Your task to perform on an android device: open app "Microsoft Excel" (install if not already installed) Image 0: 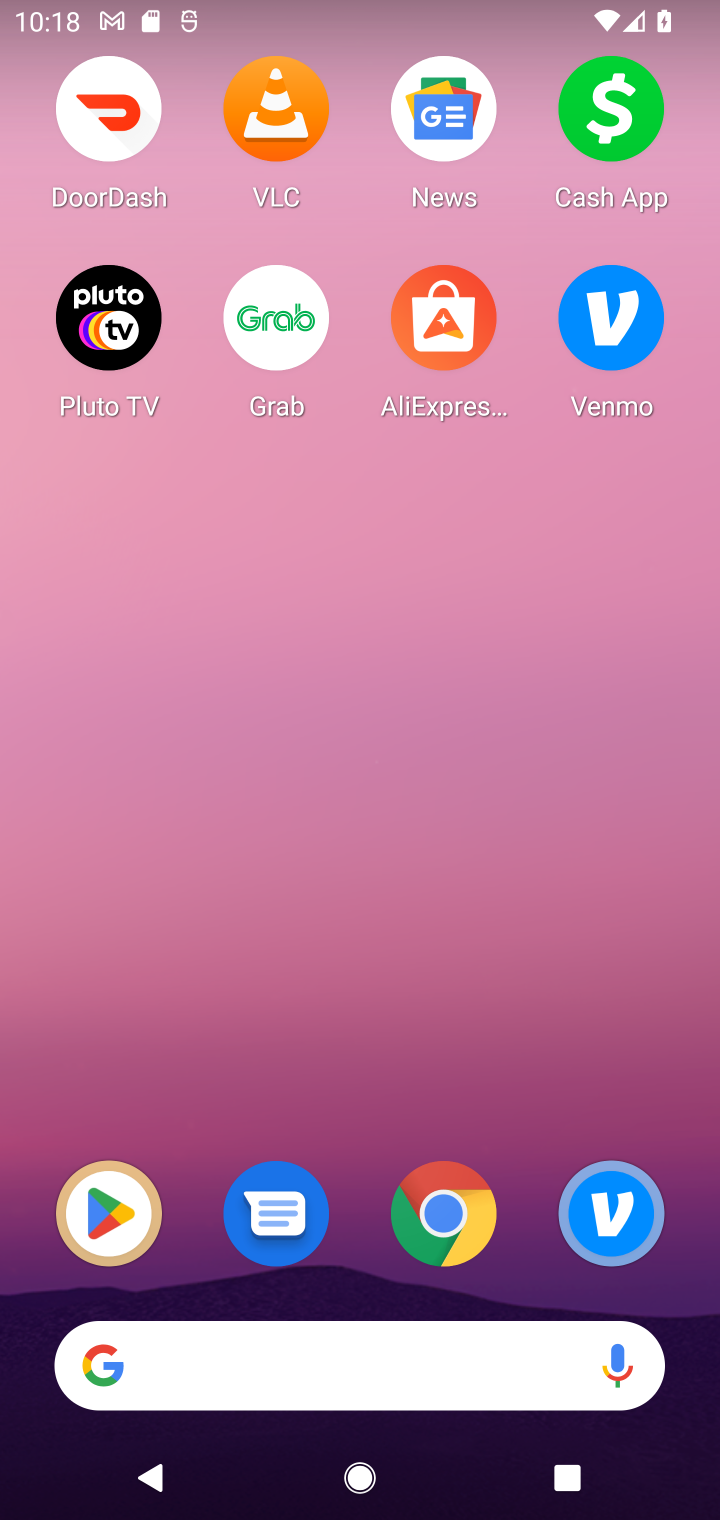
Step 0: drag from (386, 175) to (241, 104)
Your task to perform on an android device: open app "Microsoft Excel" (install if not already installed) Image 1: 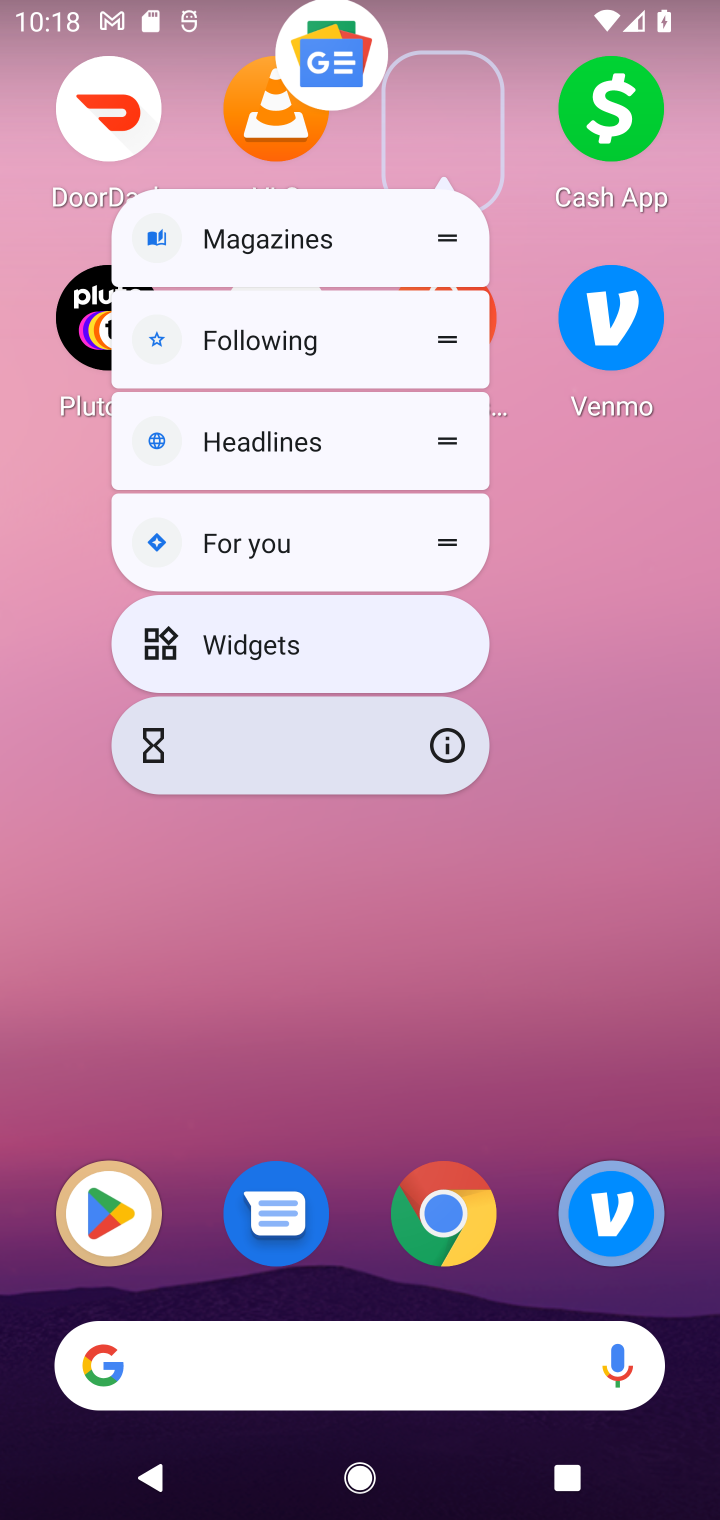
Step 1: click (103, 1226)
Your task to perform on an android device: open app "Microsoft Excel" (install if not already installed) Image 2: 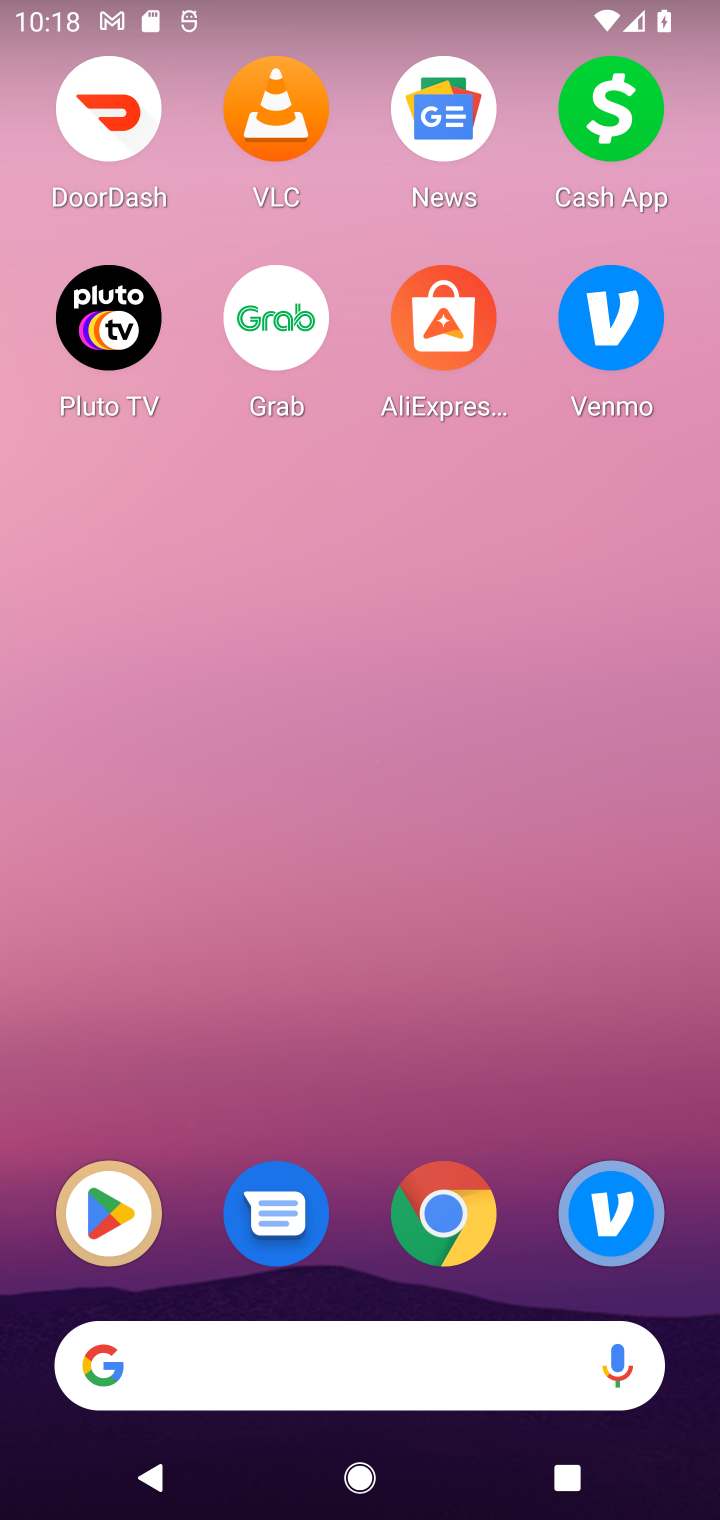
Step 2: click (103, 1226)
Your task to perform on an android device: open app "Microsoft Excel" (install if not already installed) Image 3: 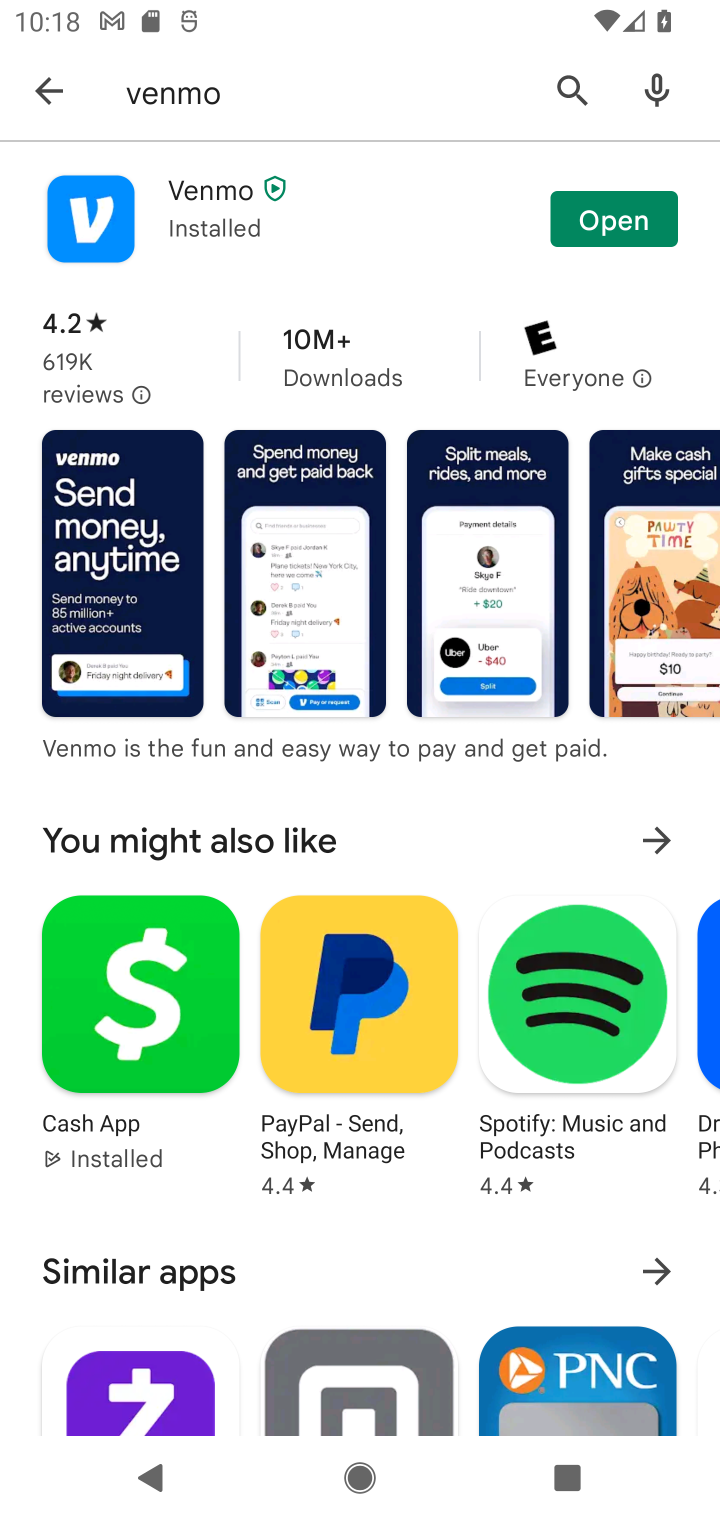
Step 3: click (36, 91)
Your task to perform on an android device: open app "Microsoft Excel" (install if not already installed) Image 4: 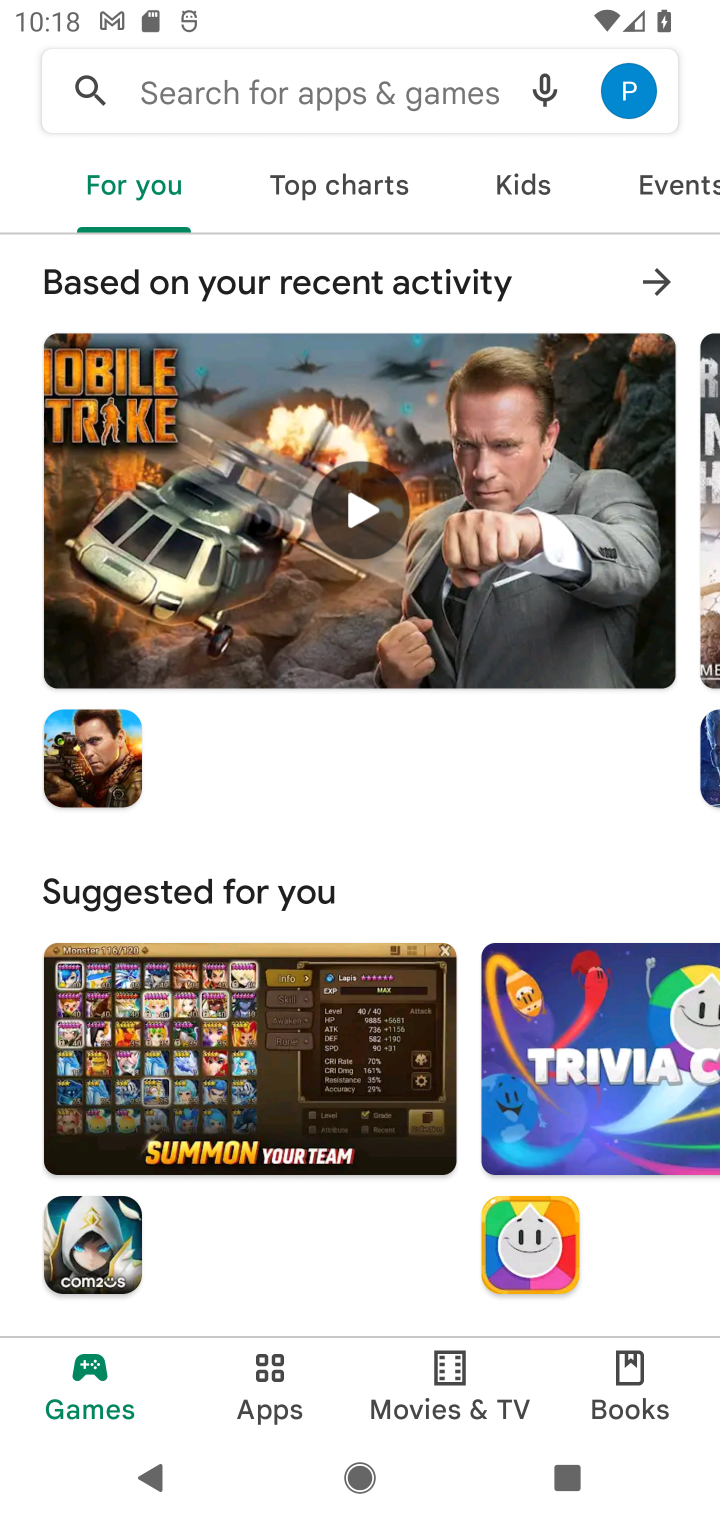
Step 4: click (255, 93)
Your task to perform on an android device: open app "Microsoft Excel" (install if not already installed) Image 5: 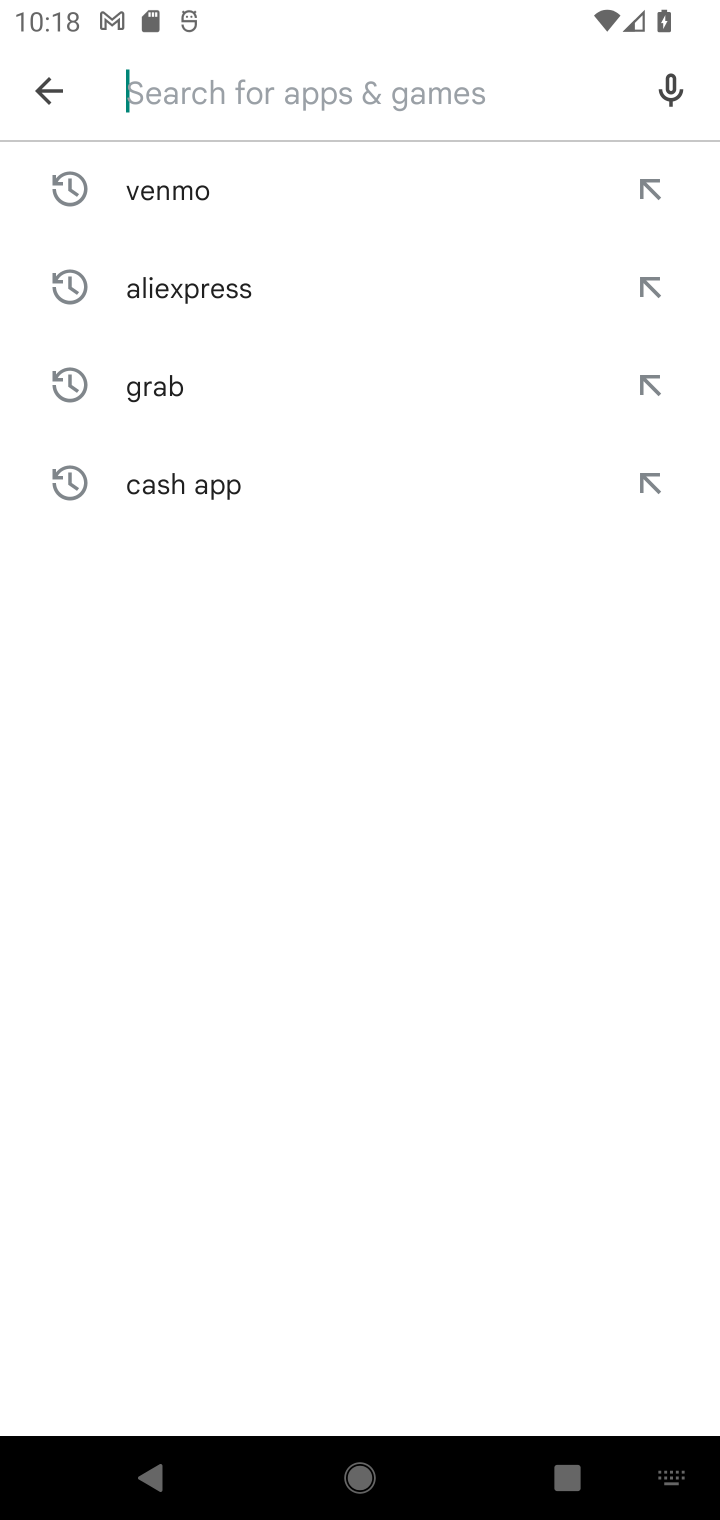
Step 5: type "Microsoft Excel"
Your task to perform on an android device: open app "Microsoft Excel" (install if not already installed) Image 6: 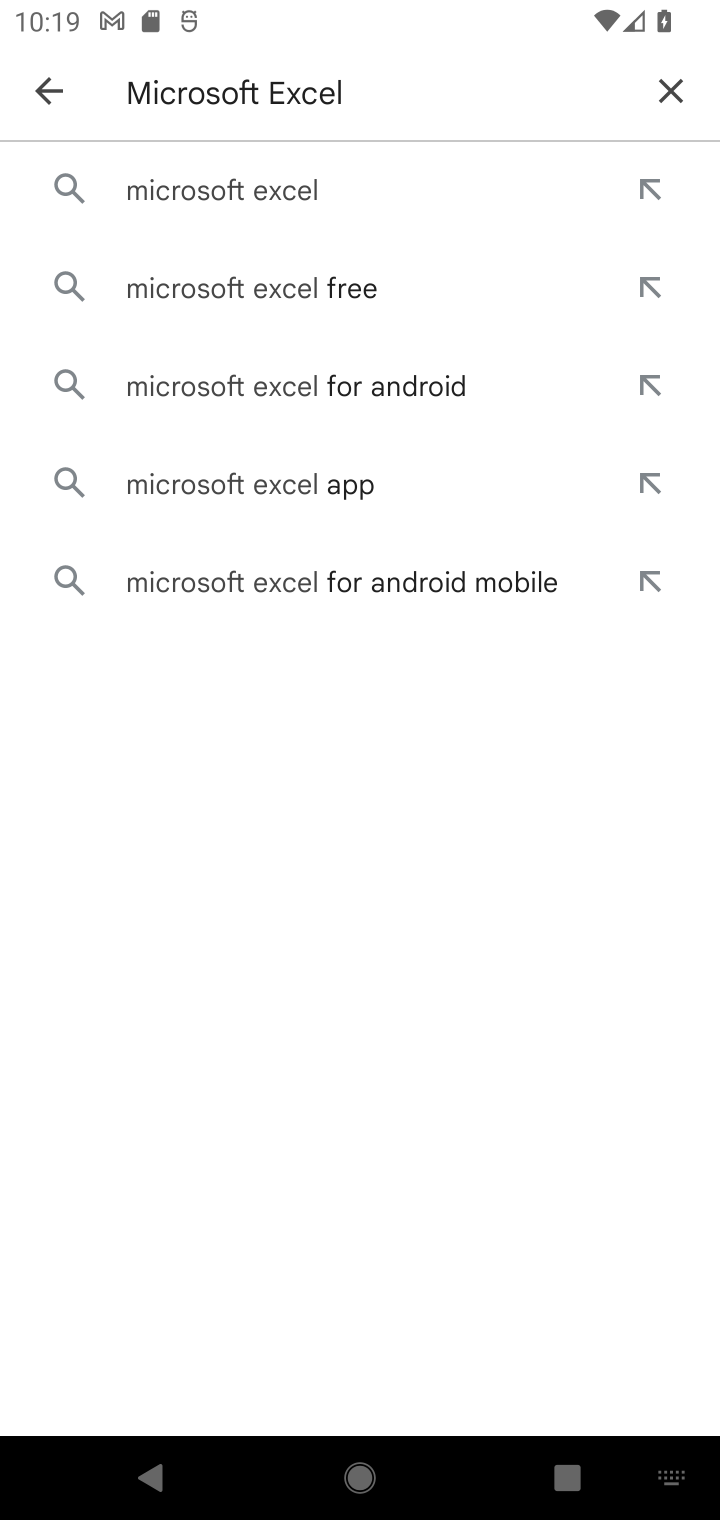
Step 6: click (313, 196)
Your task to perform on an android device: open app "Microsoft Excel" (install if not already installed) Image 7: 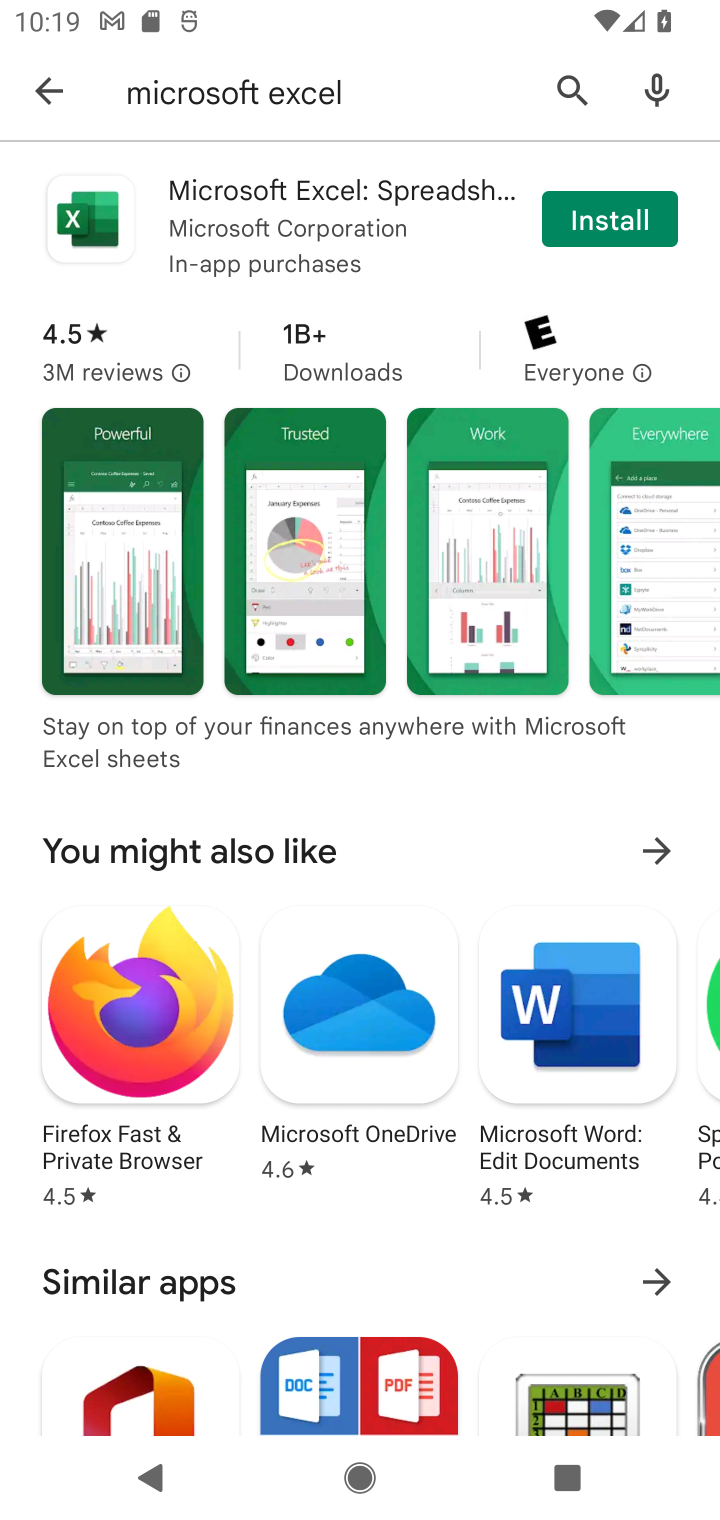
Step 7: click (620, 220)
Your task to perform on an android device: open app "Microsoft Excel" (install if not already installed) Image 8: 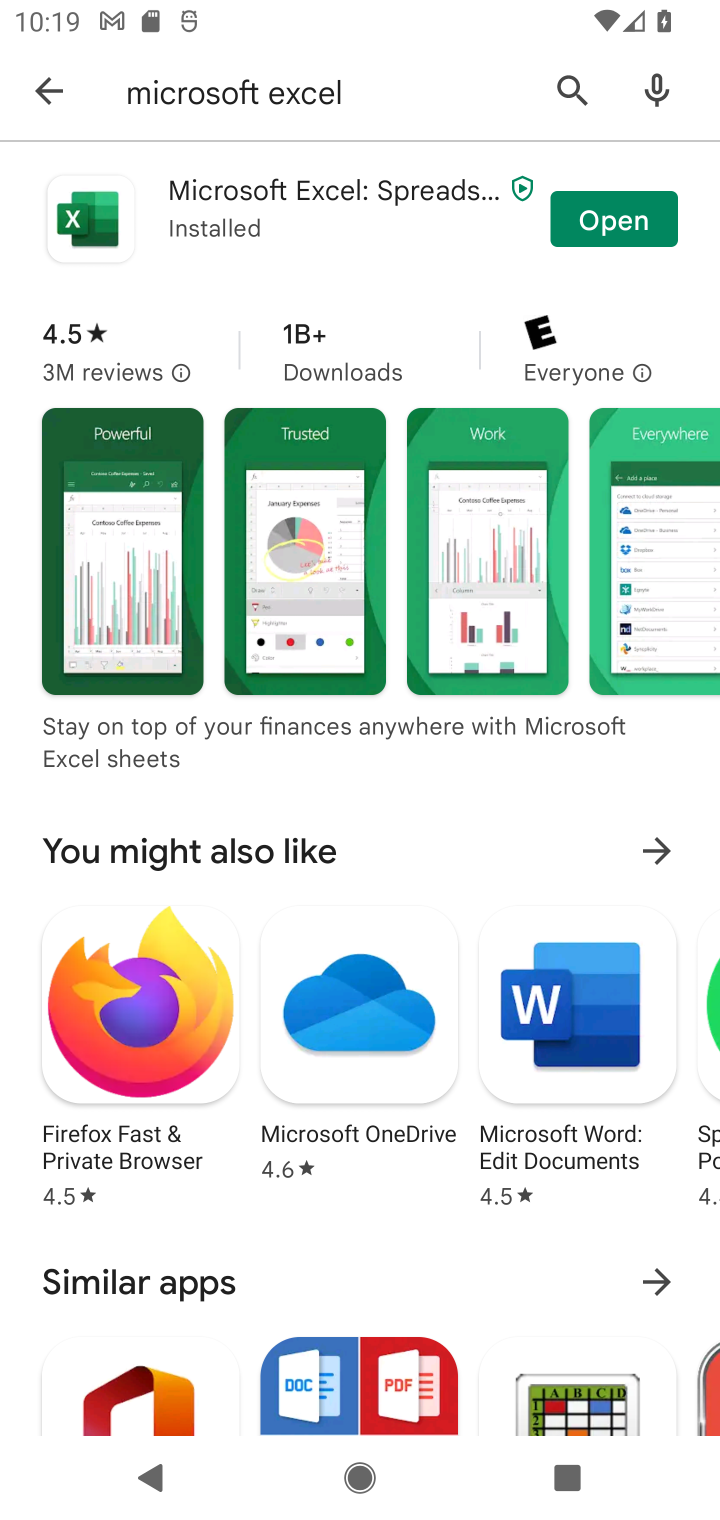
Step 8: task complete